Your task to perform on an android device: delete browsing data in the chrome app Image 0: 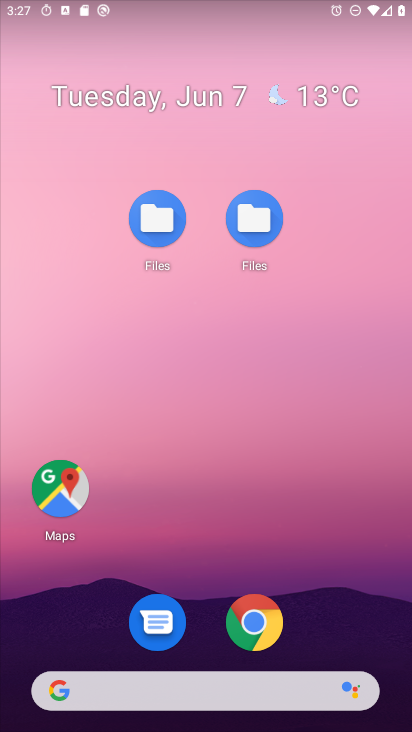
Step 0: click (252, 620)
Your task to perform on an android device: delete browsing data in the chrome app Image 1: 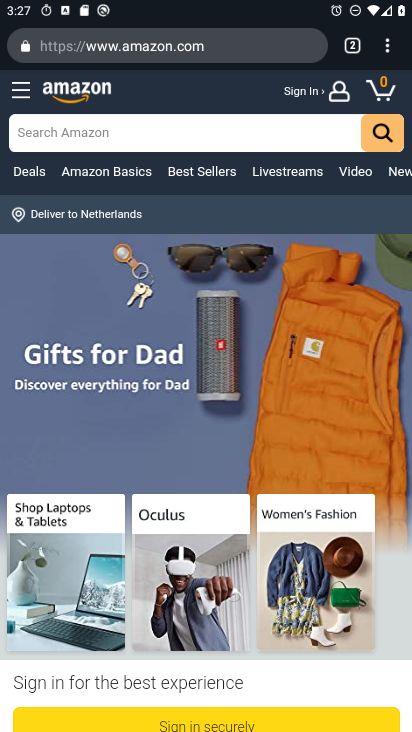
Step 1: click (394, 45)
Your task to perform on an android device: delete browsing data in the chrome app Image 2: 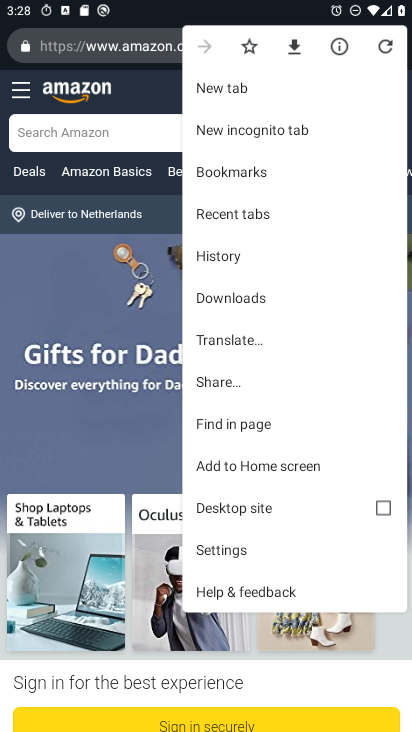
Step 2: click (236, 261)
Your task to perform on an android device: delete browsing data in the chrome app Image 3: 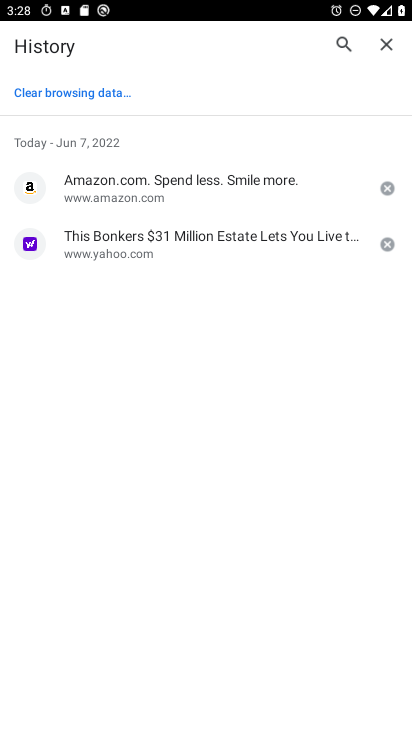
Step 3: click (105, 95)
Your task to perform on an android device: delete browsing data in the chrome app Image 4: 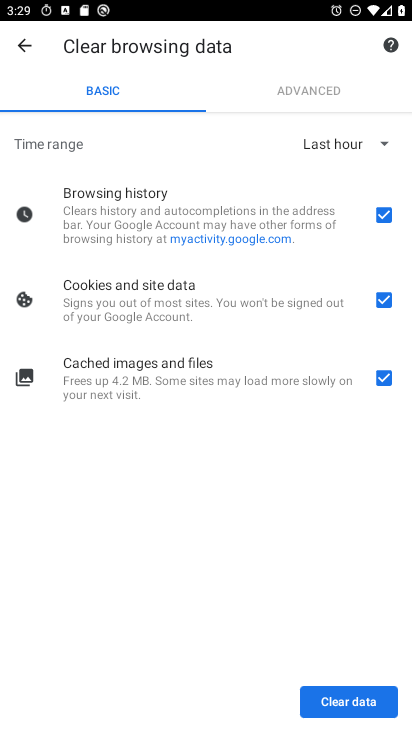
Step 4: click (377, 141)
Your task to perform on an android device: delete browsing data in the chrome app Image 5: 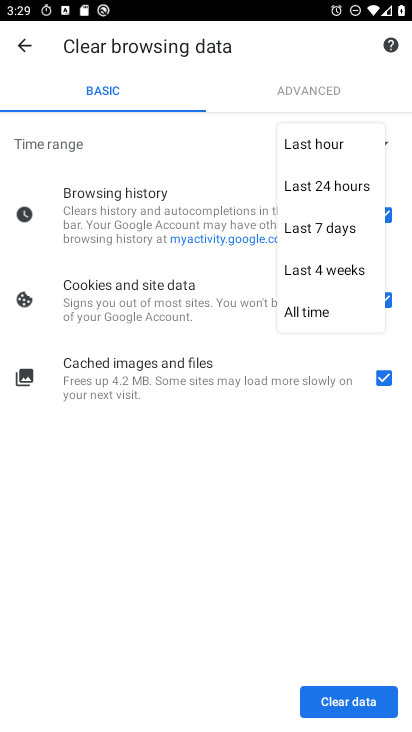
Step 5: click (319, 303)
Your task to perform on an android device: delete browsing data in the chrome app Image 6: 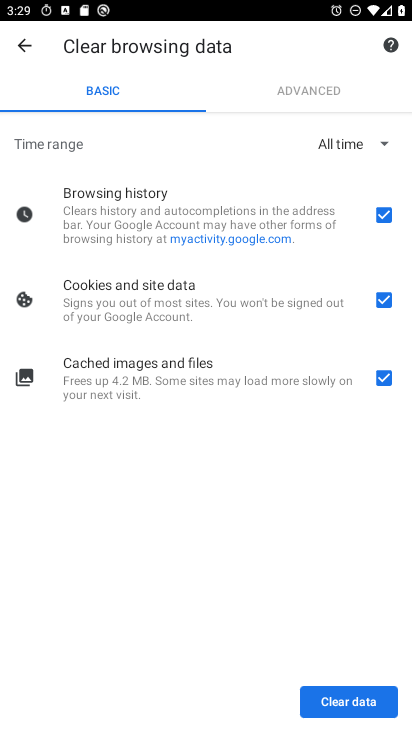
Step 6: click (366, 708)
Your task to perform on an android device: delete browsing data in the chrome app Image 7: 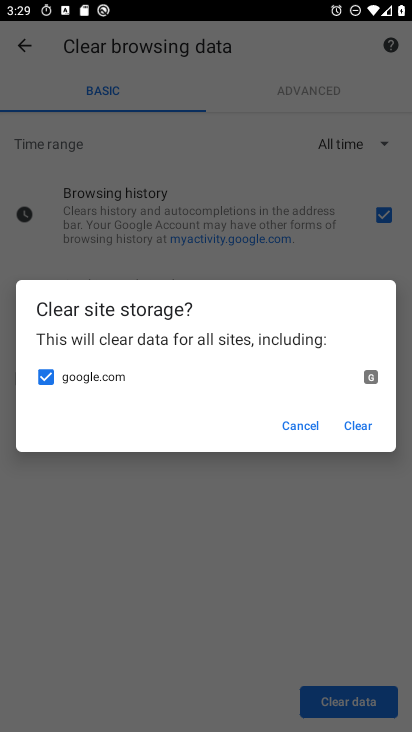
Step 7: click (357, 424)
Your task to perform on an android device: delete browsing data in the chrome app Image 8: 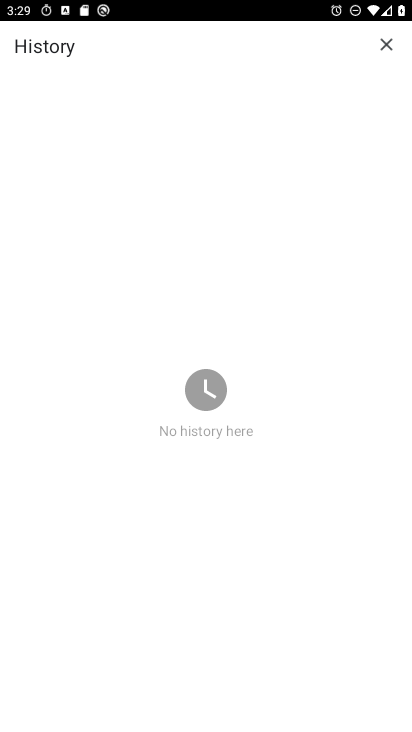
Step 8: click (357, 424)
Your task to perform on an android device: delete browsing data in the chrome app Image 9: 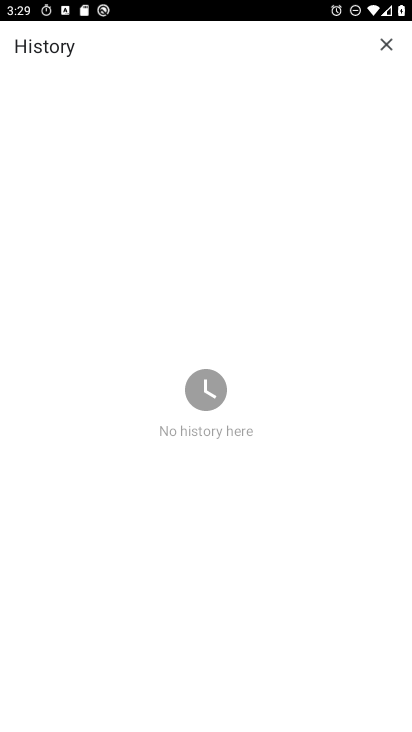
Step 9: task complete